Your task to perform on an android device: Is it going to rain tomorrow? Image 0: 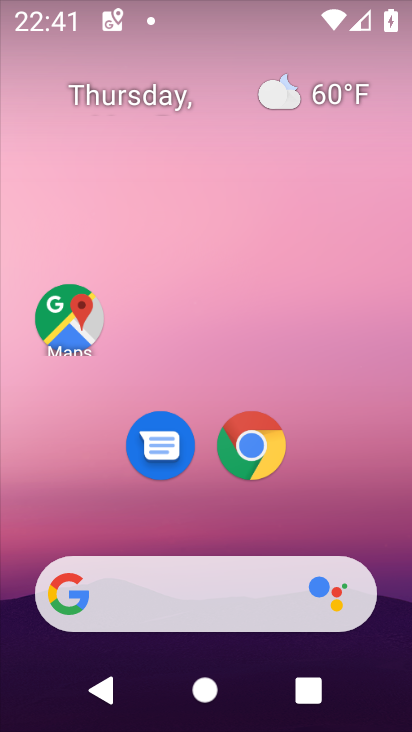
Step 0: click (321, 82)
Your task to perform on an android device: Is it going to rain tomorrow? Image 1: 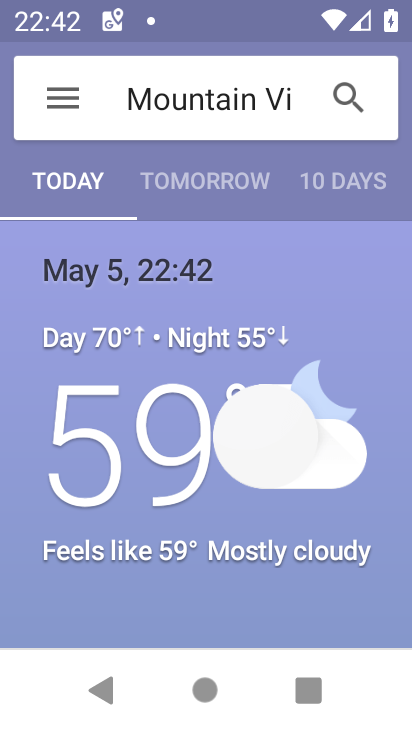
Step 1: click (234, 177)
Your task to perform on an android device: Is it going to rain tomorrow? Image 2: 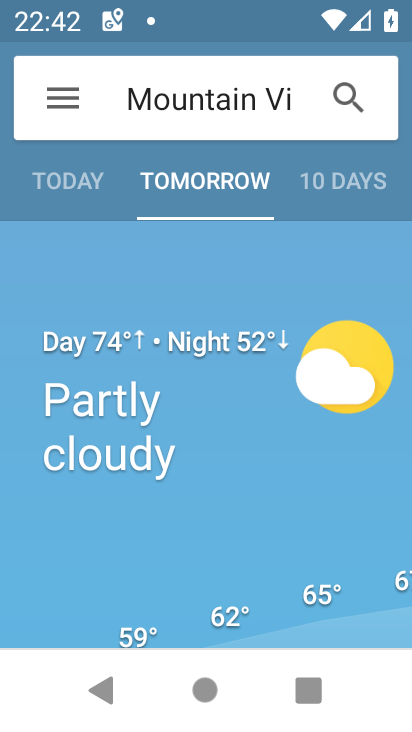
Step 2: task complete